Your task to perform on an android device: open a bookmark in the chrome app Image 0: 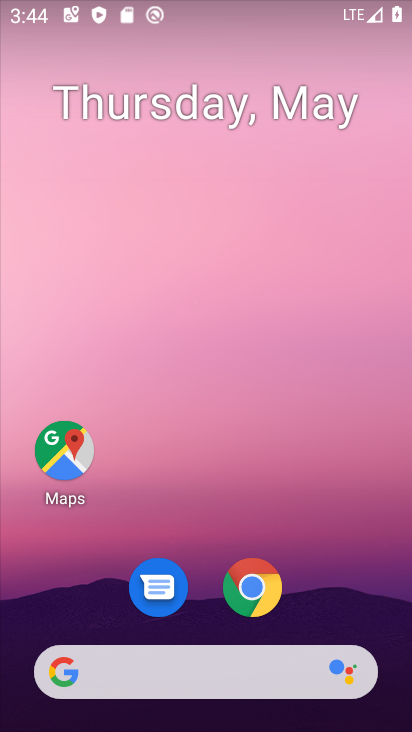
Step 0: drag from (219, 575) to (230, 204)
Your task to perform on an android device: open a bookmark in the chrome app Image 1: 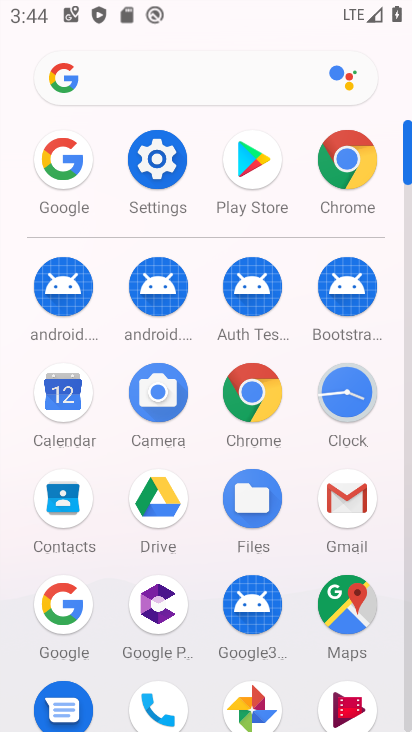
Step 1: click (335, 177)
Your task to perform on an android device: open a bookmark in the chrome app Image 2: 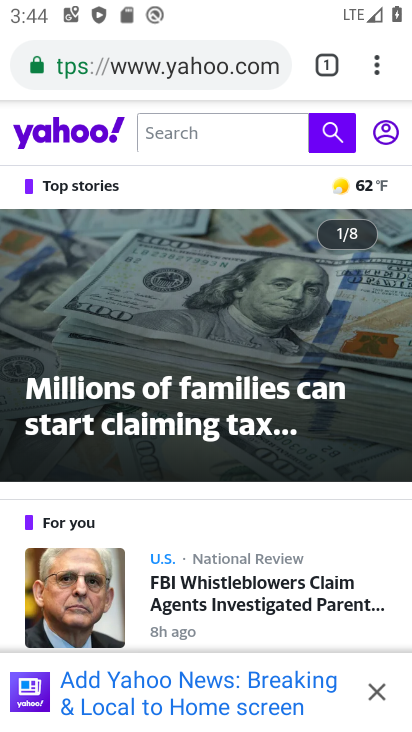
Step 2: click (370, 71)
Your task to perform on an android device: open a bookmark in the chrome app Image 3: 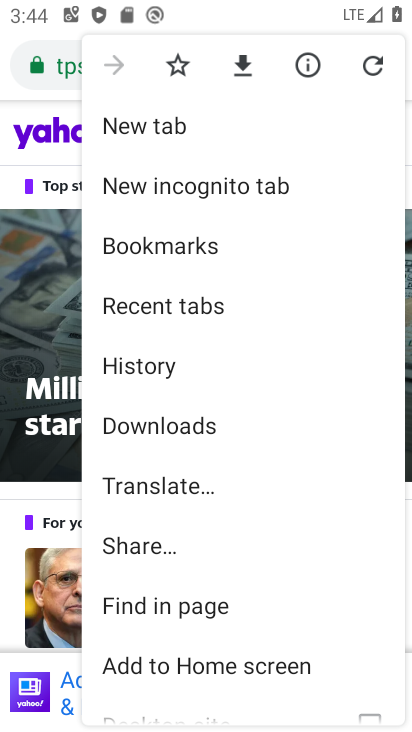
Step 3: drag from (246, 627) to (266, 341)
Your task to perform on an android device: open a bookmark in the chrome app Image 4: 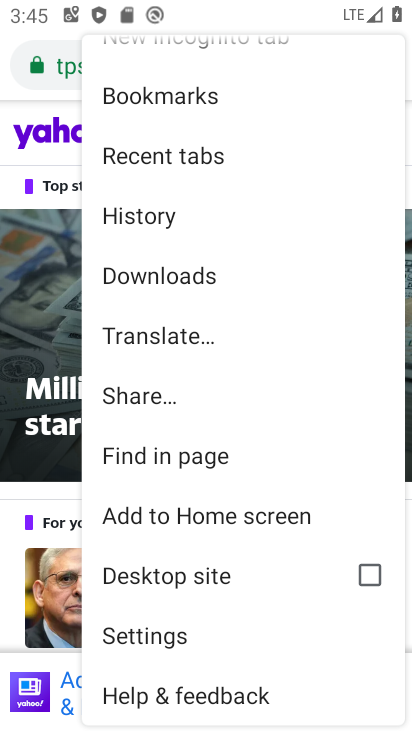
Step 4: click (186, 94)
Your task to perform on an android device: open a bookmark in the chrome app Image 5: 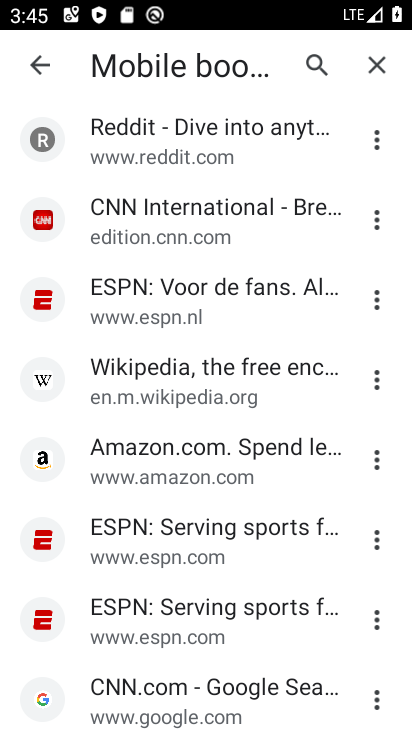
Step 5: click (191, 455)
Your task to perform on an android device: open a bookmark in the chrome app Image 6: 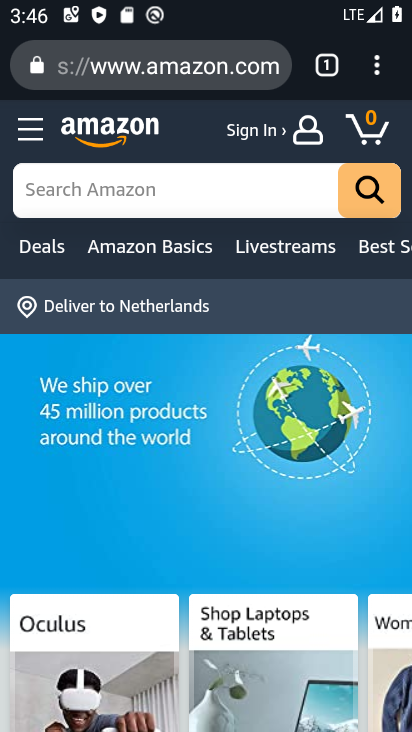
Step 6: task complete